Your task to perform on an android device: turn on wifi Image 0: 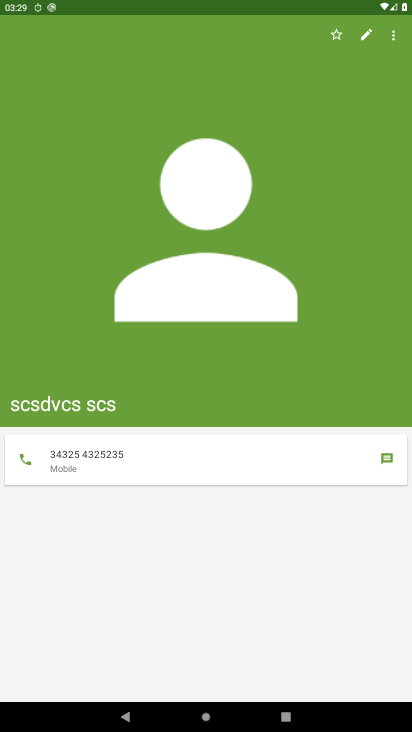
Step 0: press home button
Your task to perform on an android device: turn on wifi Image 1: 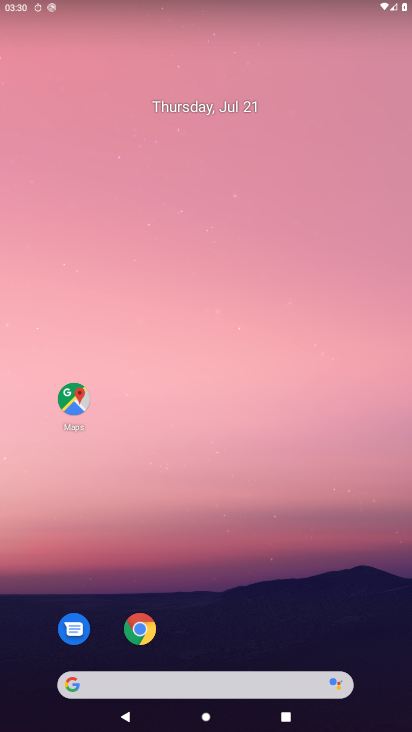
Step 1: drag from (81, 499) to (125, 288)
Your task to perform on an android device: turn on wifi Image 2: 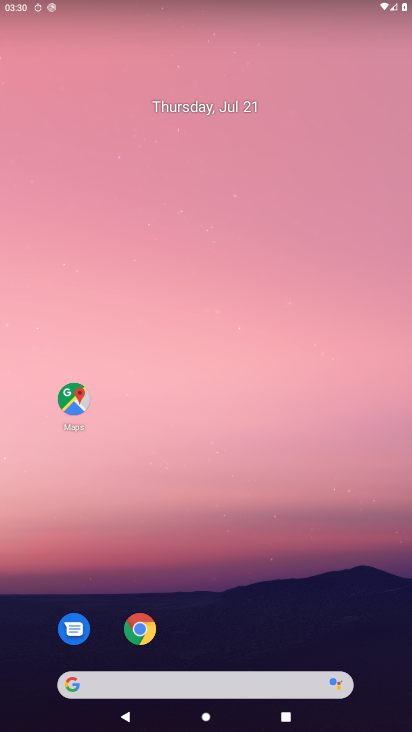
Step 2: drag from (30, 700) to (181, 4)
Your task to perform on an android device: turn on wifi Image 3: 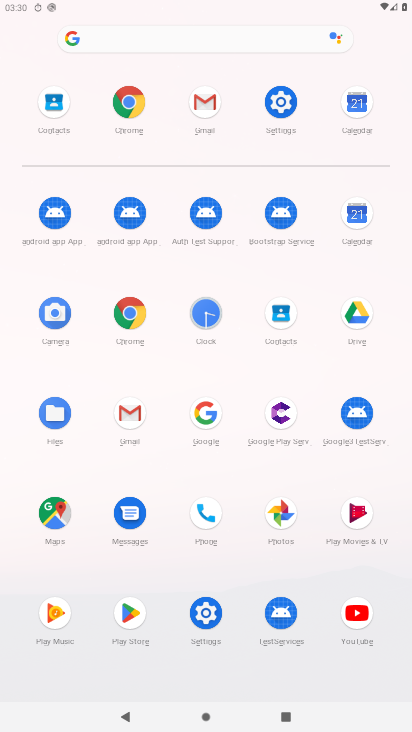
Step 3: click (197, 607)
Your task to perform on an android device: turn on wifi Image 4: 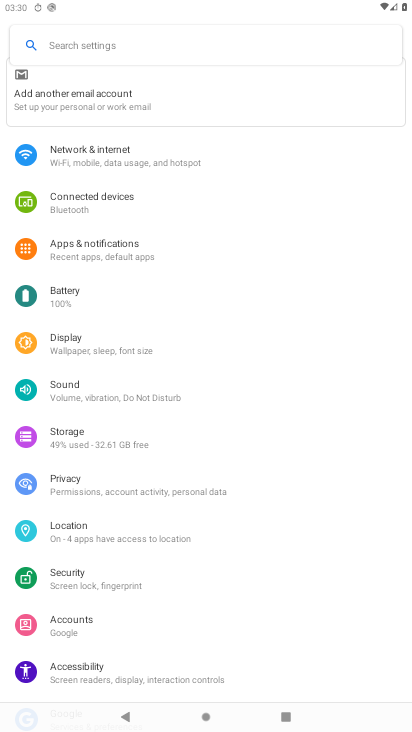
Step 4: click (142, 145)
Your task to perform on an android device: turn on wifi Image 5: 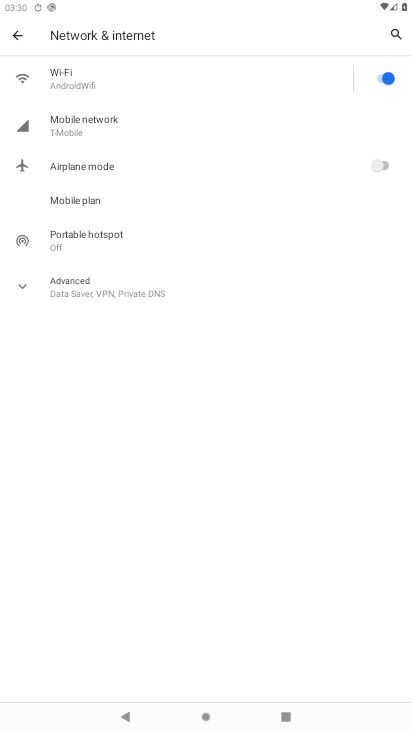
Step 5: task complete